Your task to perform on an android device: change text size in settings app Image 0: 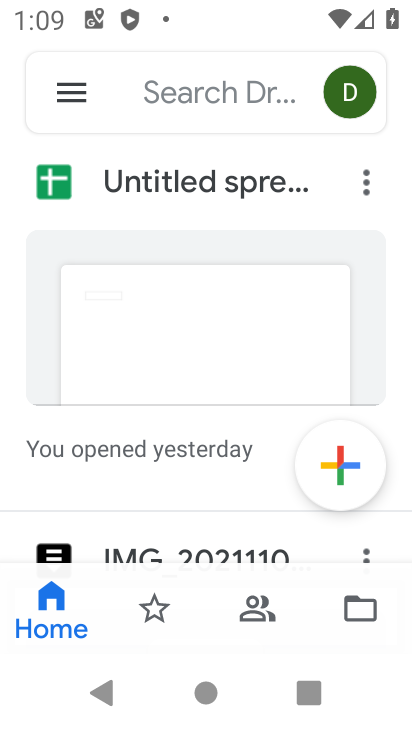
Step 0: press home button
Your task to perform on an android device: change text size in settings app Image 1: 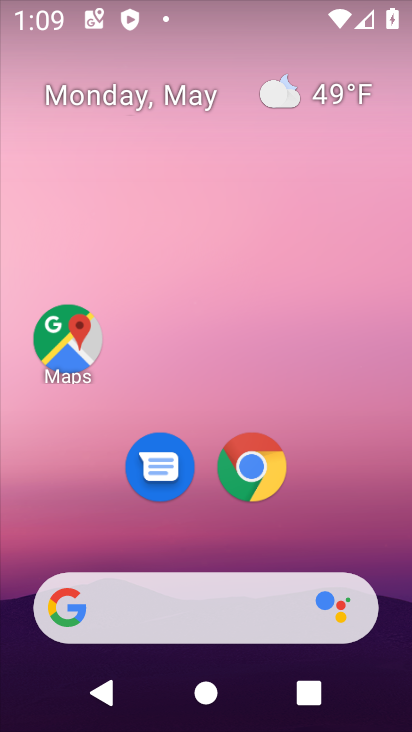
Step 1: drag from (367, 490) to (340, 119)
Your task to perform on an android device: change text size in settings app Image 2: 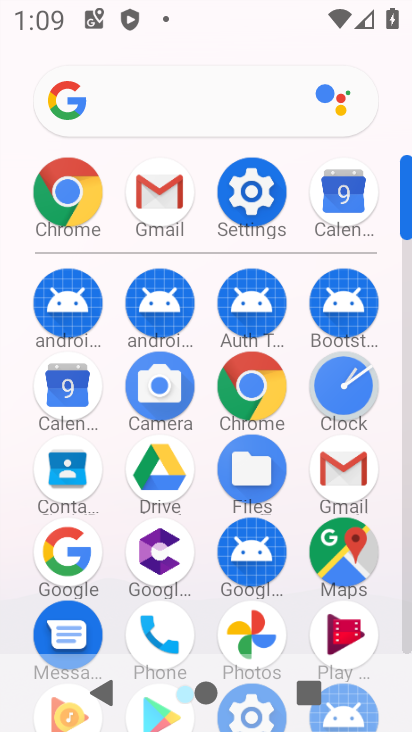
Step 2: click (272, 187)
Your task to perform on an android device: change text size in settings app Image 3: 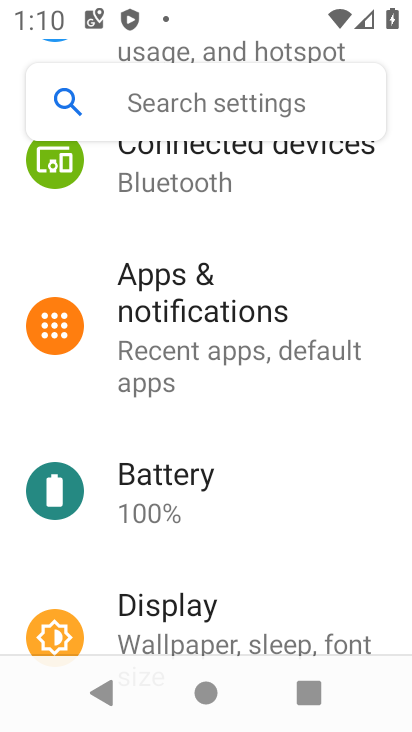
Step 3: click (217, 611)
Your task to perform on an android device: change text size in settings app Image 4: 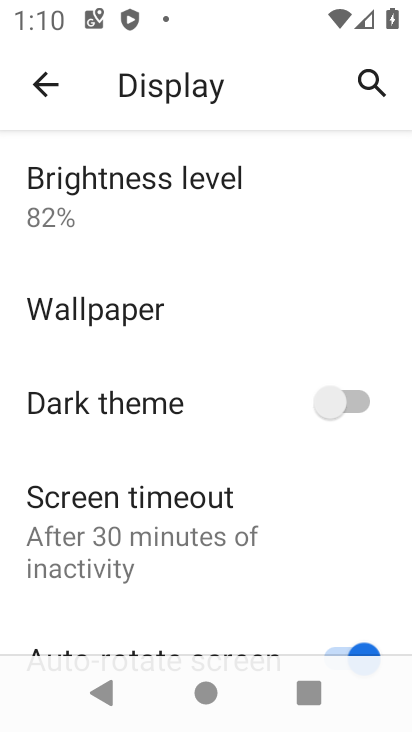
Step 4: drag from (202, 601) to (226, 321)
Your task to perform on an android device: change text size in settings app Image 5: 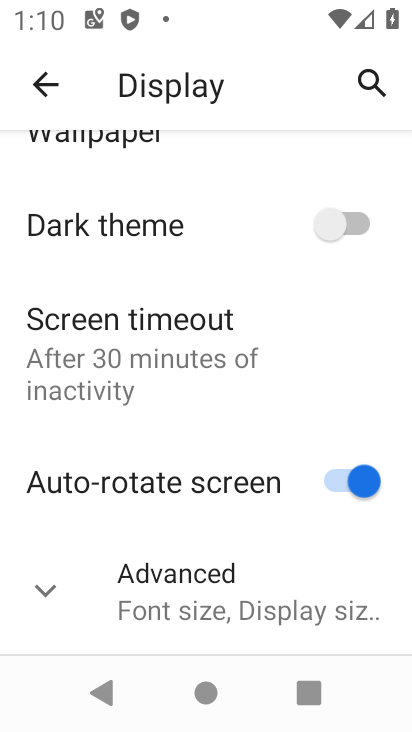
Step 5: click (224, 626)
Your task to perform on an android device: change text size in settings app Image 6: 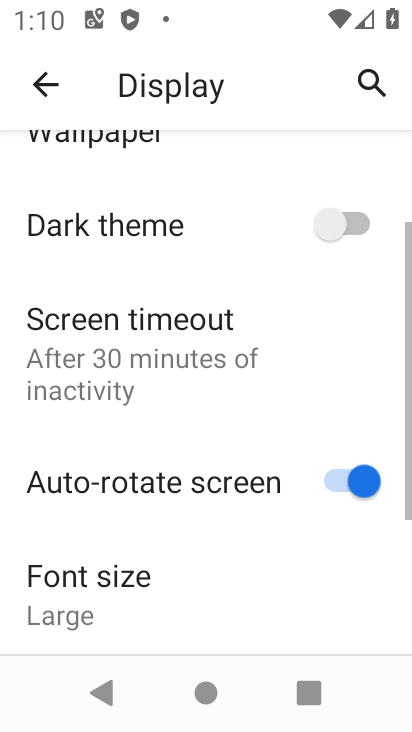
Step 6: click (115, 586)
Your task to perform on an android device: change text size in settings app Image 7: 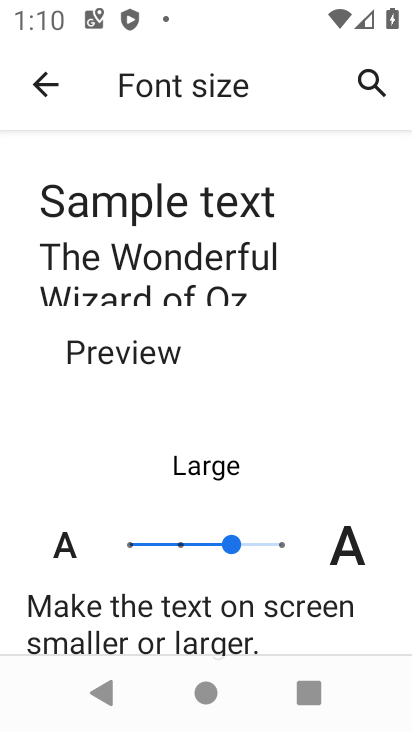
Step 7: click (136, 548)
Your task to perform on an android device: change text size in settings app Image 8: 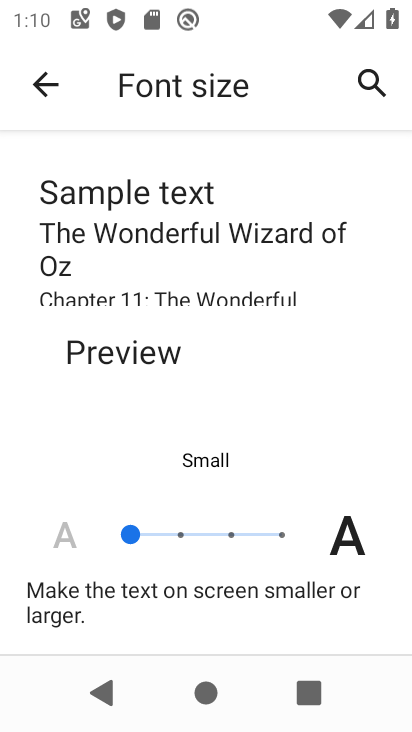
Step 8: task complete